Your task to perform on an android device: delete browsing data in the chrome app Image 0: 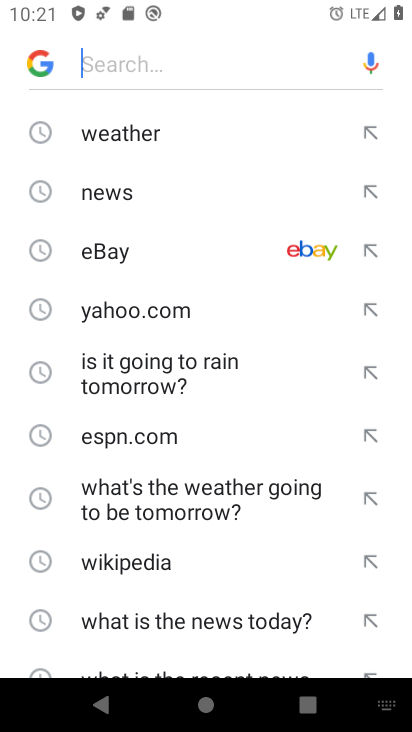
Step 0: press home button
Your task to perform on an android device: delete browsing data in the chrome app Image 1: 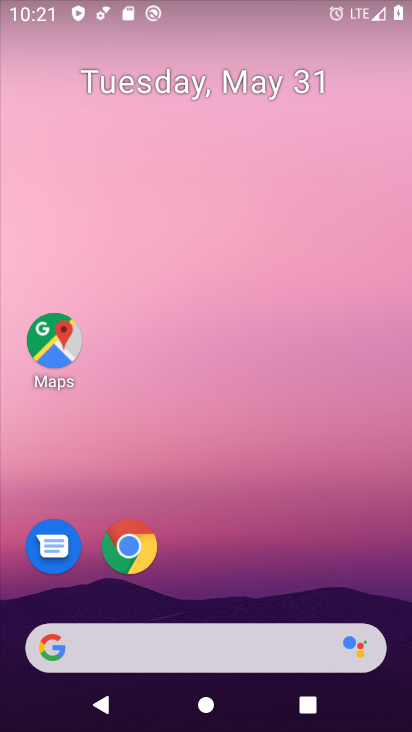
Step 1: drag from (260, 640) to (243, 10)
Your task to perform on an android device: delete browsing data in the chrome app Image 2: 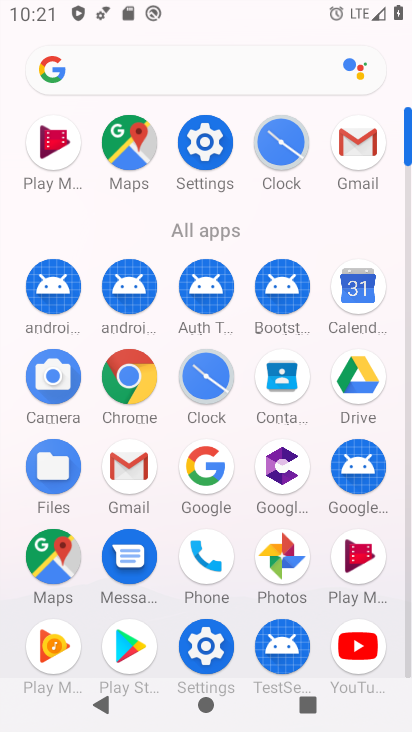
Step 2: click (140, 373)
Your task to perform on an android device: delete browsing data in the chrome app Image 3: 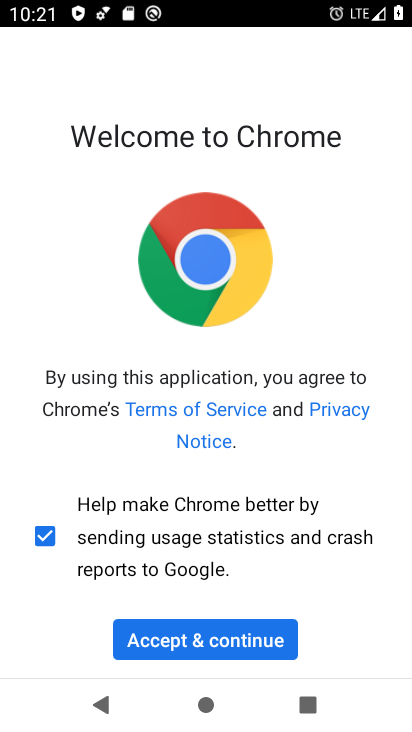
Step 3: click (204, 639)
Your task to perform on an android device: delete browsing data in the chrome app Image 4: 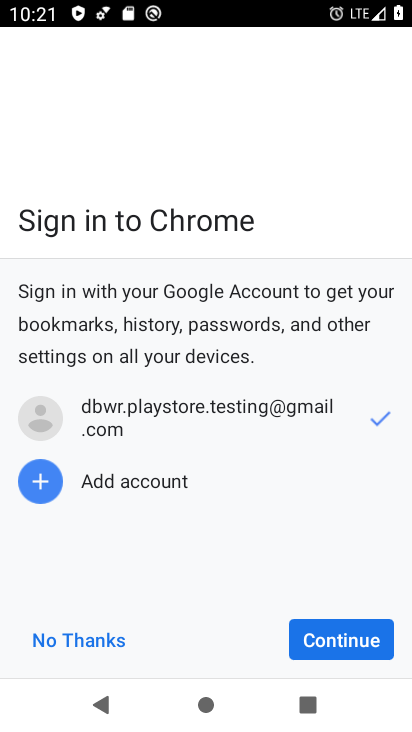
Step 4: click (204, 617)
Your task to perform on an android device: delete browsing data in the chrome app Image 5: 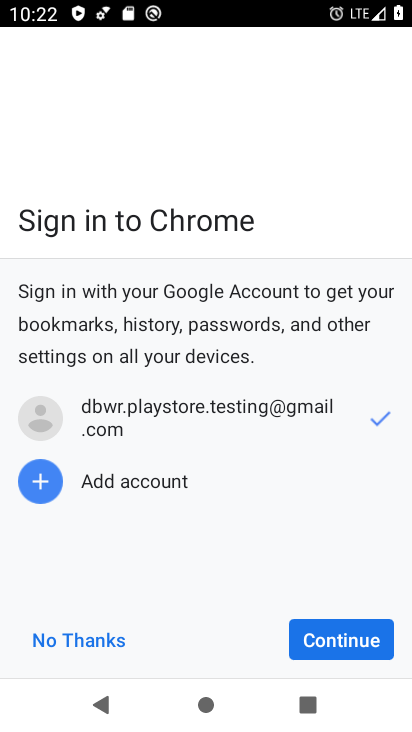
Step 5: click (97, 643)
Your task to perform on an android device: delete browsing data in the chrome app Image 6: 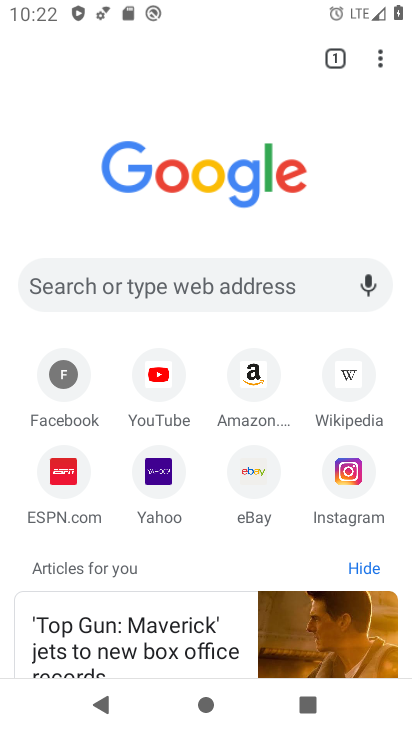
Step 6: drag from (379, 59) to (205, 498)
Your task to perform on an android device: delete browsing data in the chrome app Image 7: 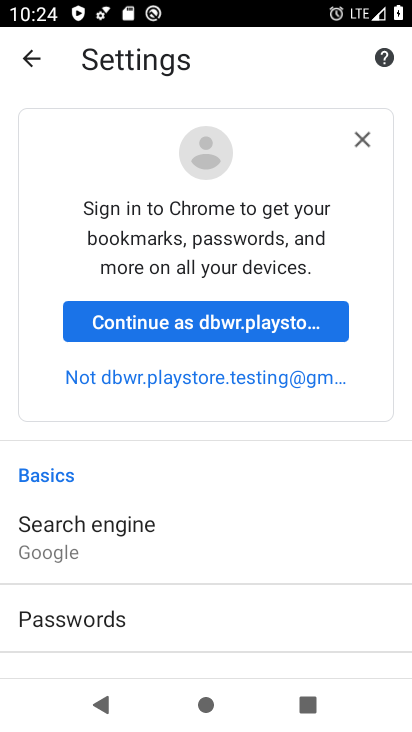
Step 7: press home button
Your task to perform on an android device: delete browsing data in the chrome app Image 8: 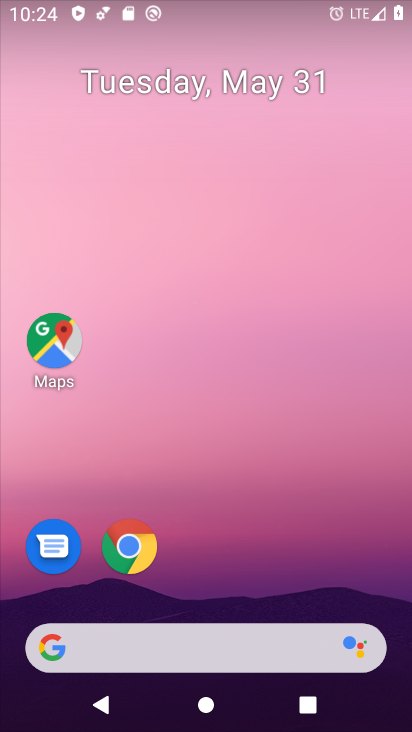
Step 8: drag from (159, 537) to (158, 201)
Your task to perform on an android device: delete browsing data in the chrome app Image 9: 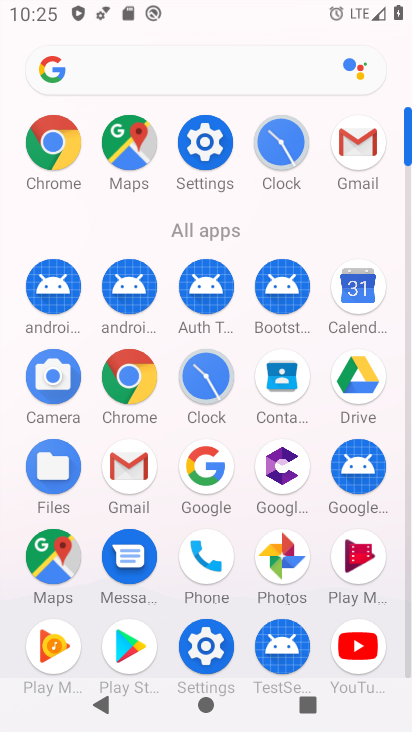
Step 9: press home button
Your task to perform on an android device: delete browsing data in the chrome app Image 10: 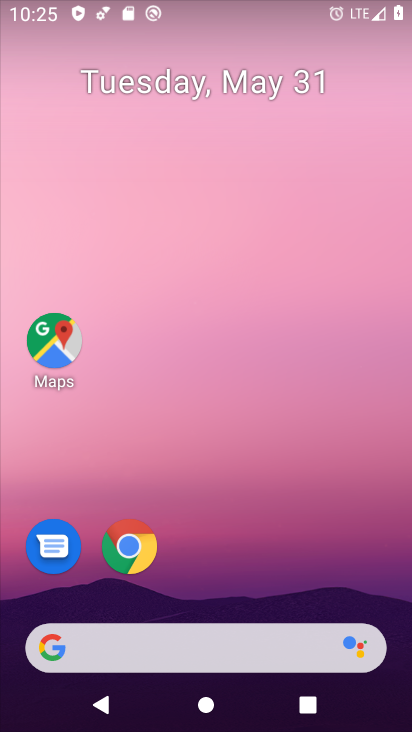
Step 10: drag from (193, 616) to (272, 75)
Your task to perform on an android device: delete browsing data in the chrome app Image 11: 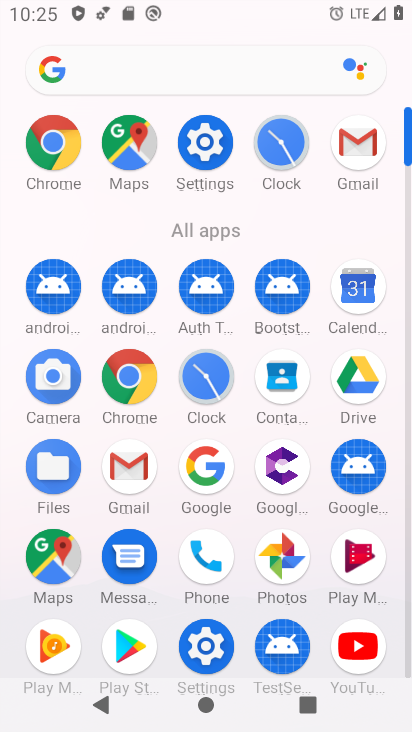
Step 11: click (141, 386)
Your task to perform on an android device: delete browsing data in the chrome app Image 12: 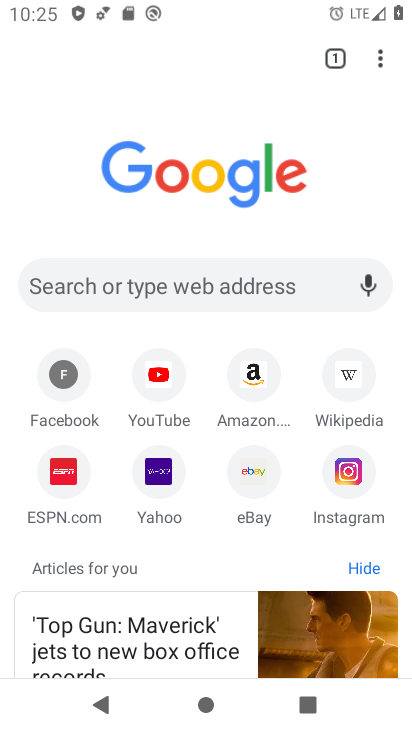
Step 12: task complete